Your task to perform on an android device: Go to accessibility settings Image 0: 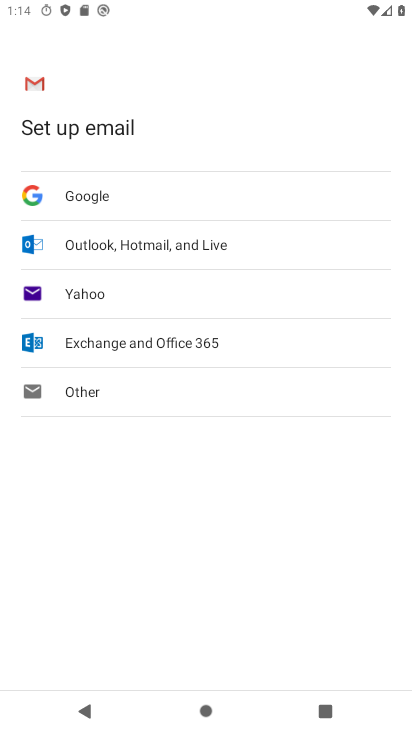
Step 0: press home button
Your task to perform on an android device: Go to accessibility settings Image 1: 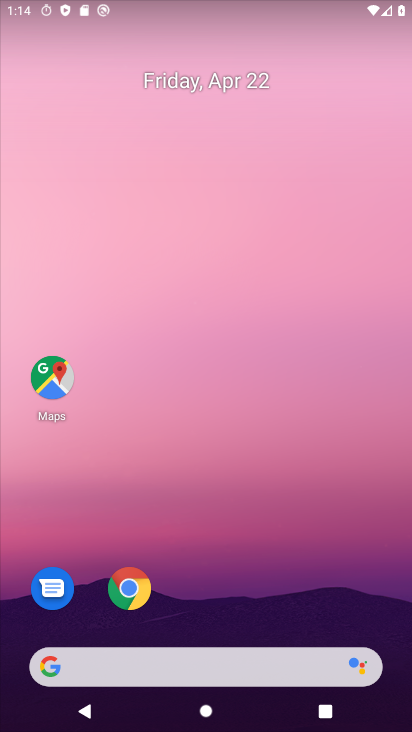
Step 1: drag from (344, 596) to (390, 68)
Your task to perform on an android device: Go to accessibility settings Image 2: 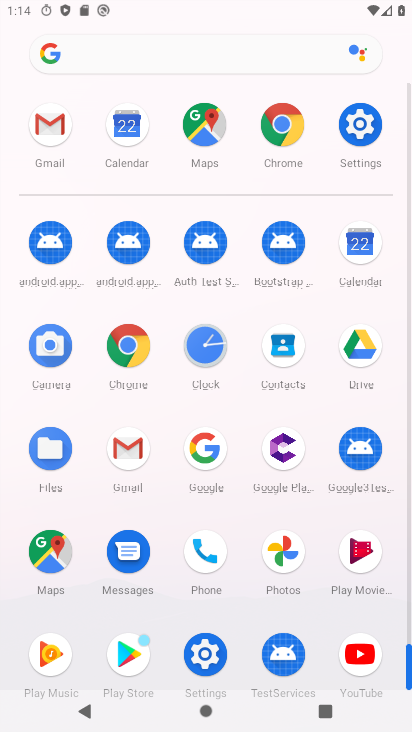
Step 2: click (210, 661)
Your task to perform on an android device: Go to accessibility settings Image 3: 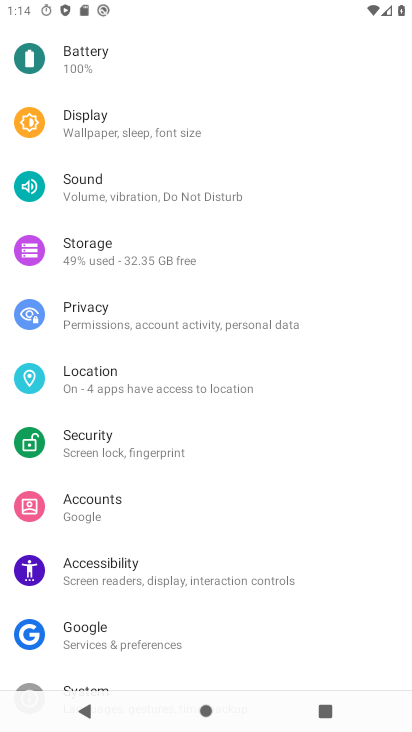
Step 3: click (189, 574)
Your task to perform on an android device: Go to accessibility settings Image 4: 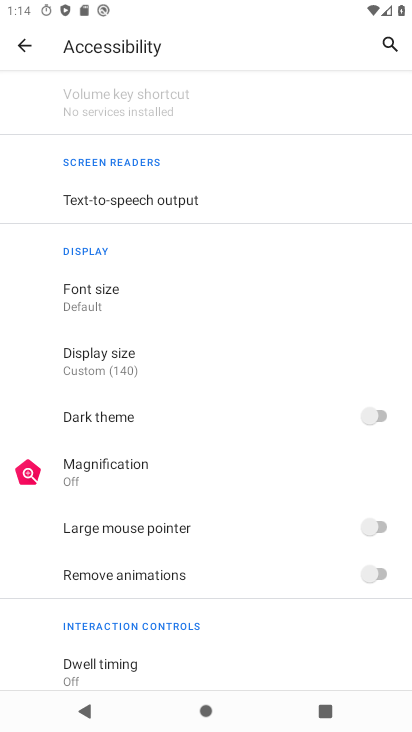
Step 4: task complete